Your task to perform on an android device: turn off picture-in-picture Image 0: 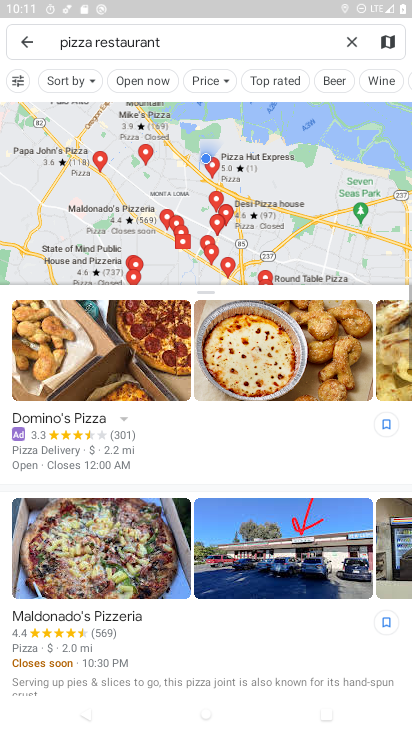
Step 0: press home button
Your task to perform on an android device: turn off picture-in-picture Image 1: 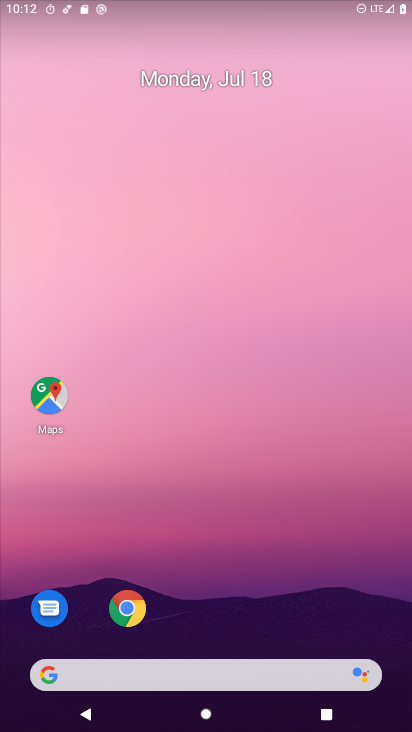
Step 1: drag from (181, 573) to (107, 8)
Your task to perform on an android device: turn off picture-in-picture Image 2: 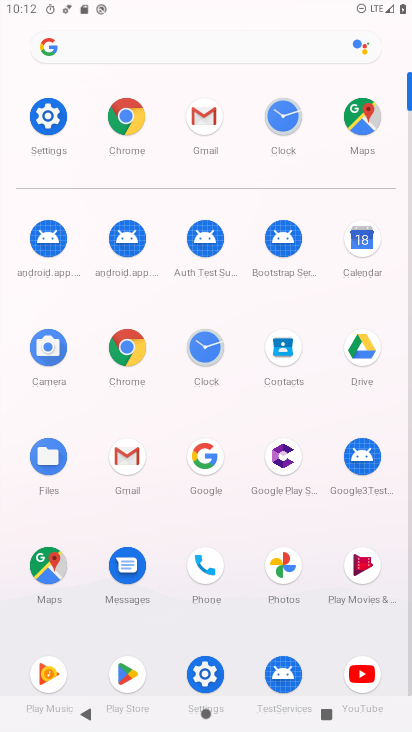
Step 2: click (43, 117)
Your task to perform on an android device: turn off picture-in-picture Image 3: 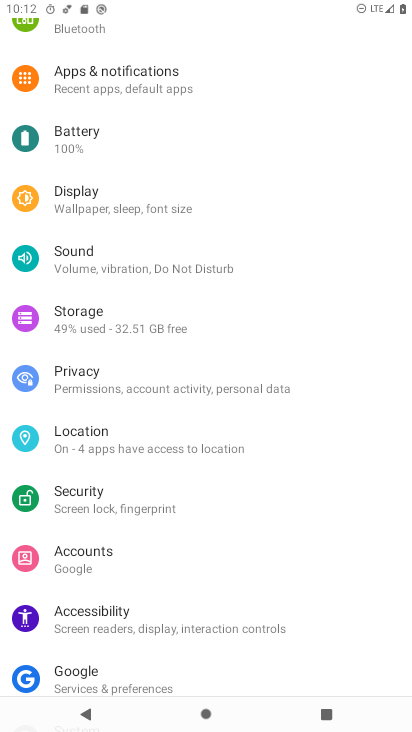
Step 3: click (85, 92)
Your task to perform on an android device: turn off picture-in-picture Image 4: 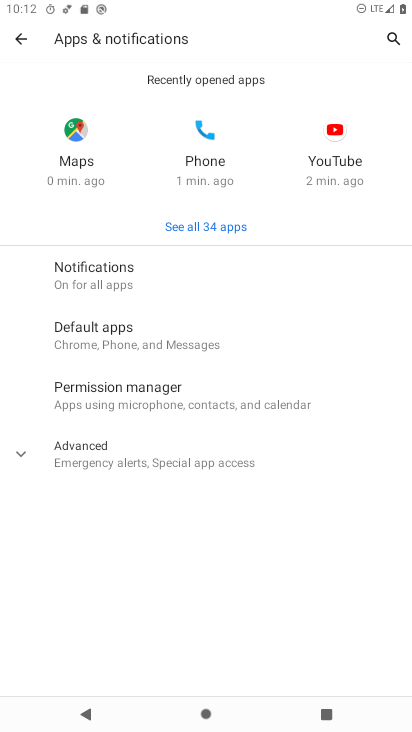
Step 4: click (123, 456)
Your task to perform on an android device: turn off picture-in-picture Image 5: 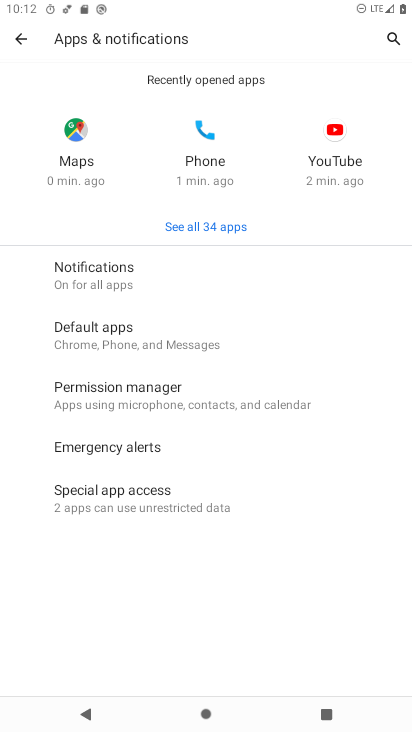
Step 5: click (89, 517)
Your task to perform on an android device: turn off picture-in-picture Image 6: 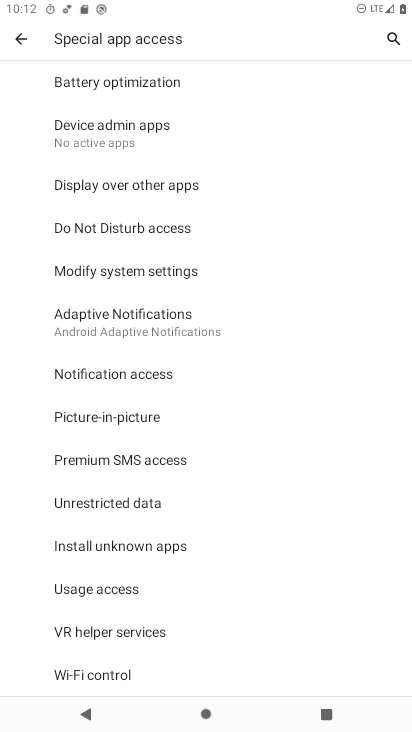
Step 6: click (89, 425)
Your task to perform on an android device: turn off picture-in-picture Image 7: 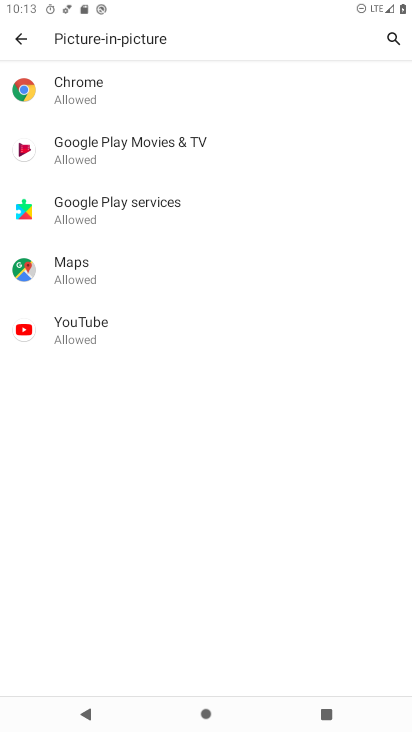
Step 7: click (60, 88)
Your task to perform on an android device: turn off picture-in-picture Image 8: 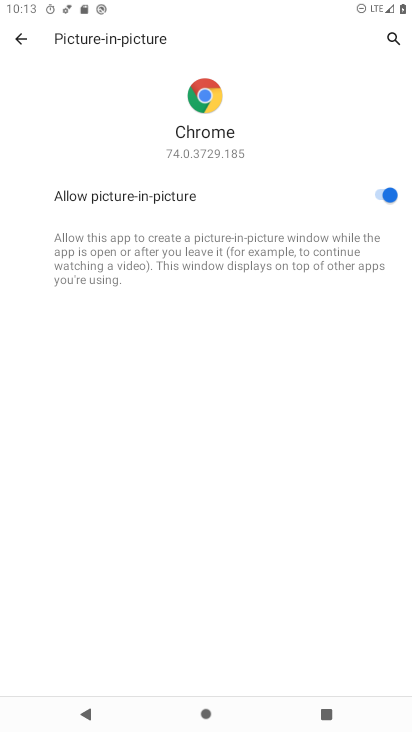
Step 8: click (372, 201)
Your task to perform on an android device: turn off picture-in-picture Image 9: 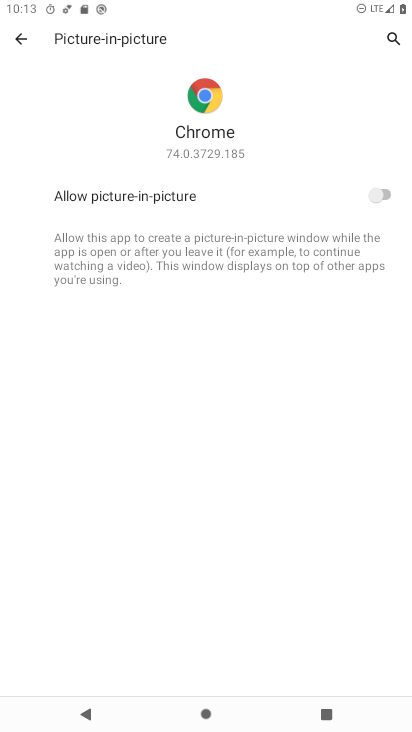
Step 9: task complete